Your task to perform on an android device: Go to Wikipedia Image 0: 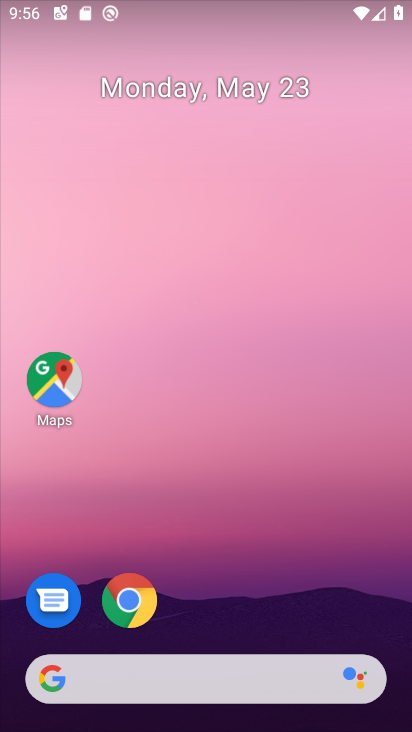
Step 0: click (129, 596)
Your task to perform on an android device: Go to Wikipedia Image 1: 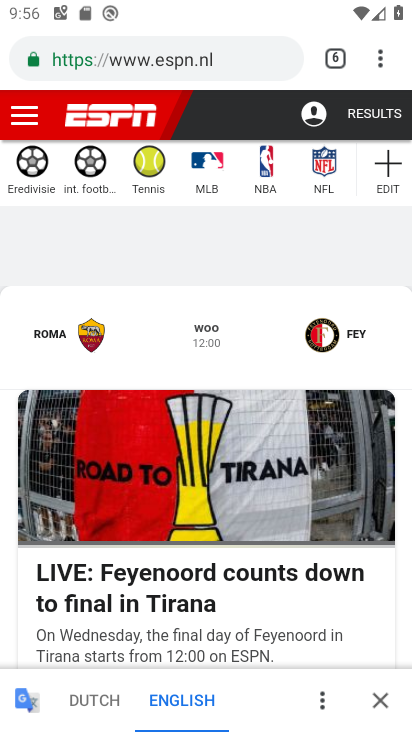
Step 1: click (382, 65)
Your task to perform on an android device: Go to Wikipedia Image 2: 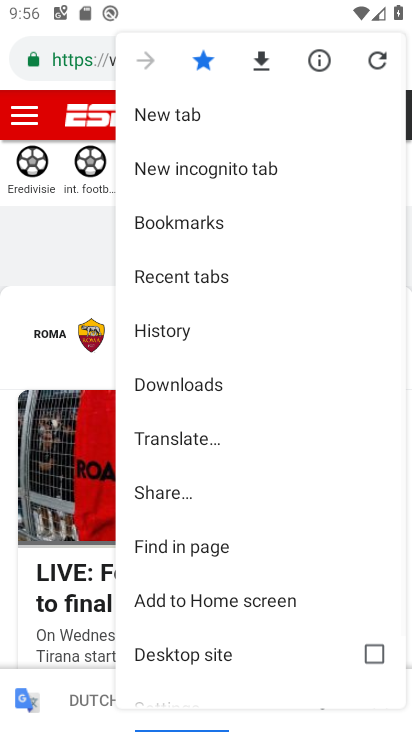
Step 2: click (156, 111)
Your task to perform on an android device: Go to Wikipedia Image 3: 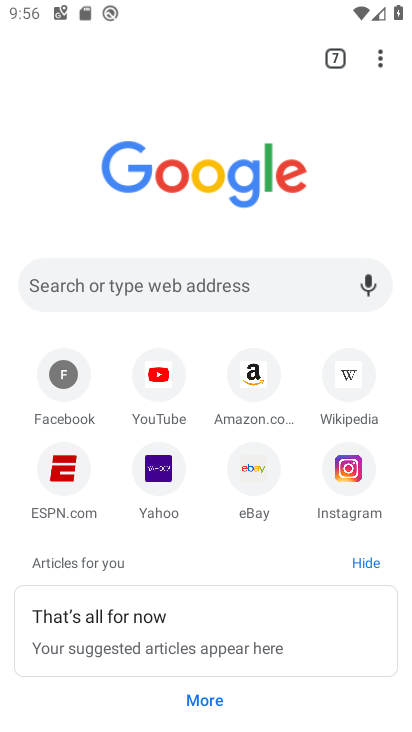
Step 3: click (349, 381)
Your task to perform on an android device: Go to Wikipedia Image 4: 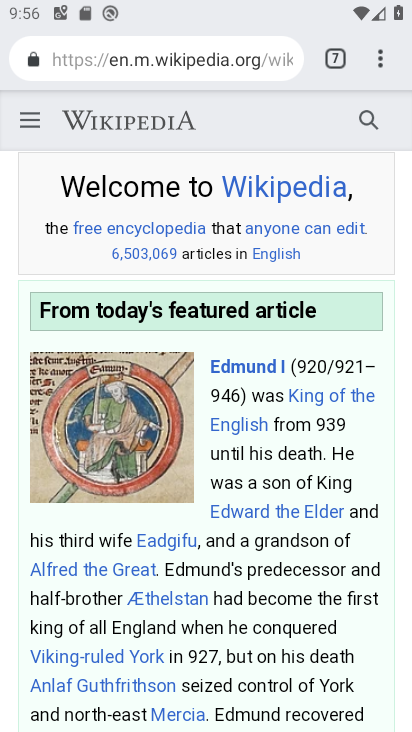
Step 4: task complete